Your task to perform on an android device: set an alarm Image 0: 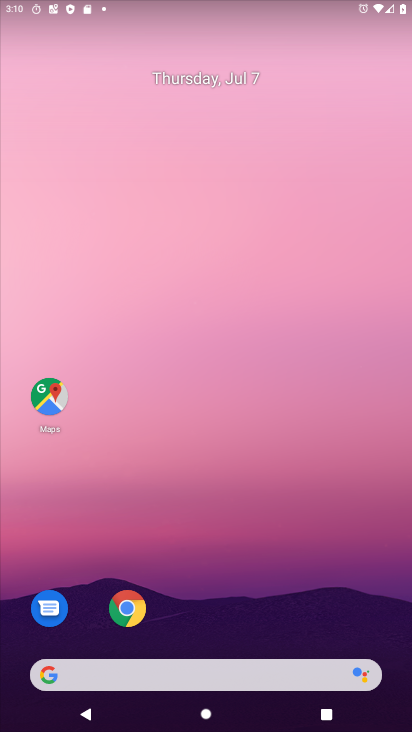
Step 0: drag from (245, 726) to (243, 116)
Your task to perform on an android device: set an alarm Image 1: 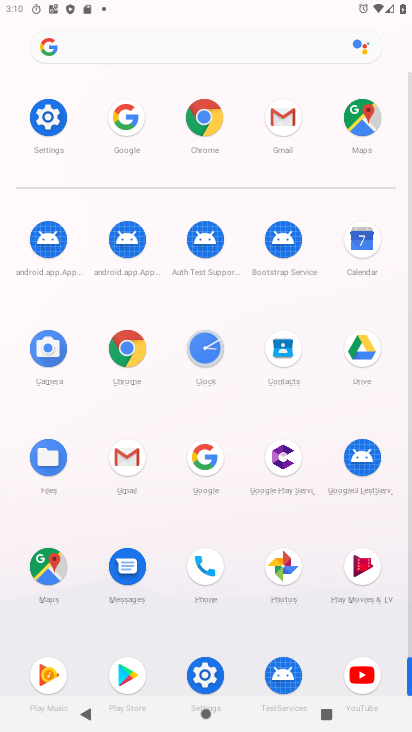
Step 1: click (206, 347)
Your task to perform on an android device: set an alarm Image 2: 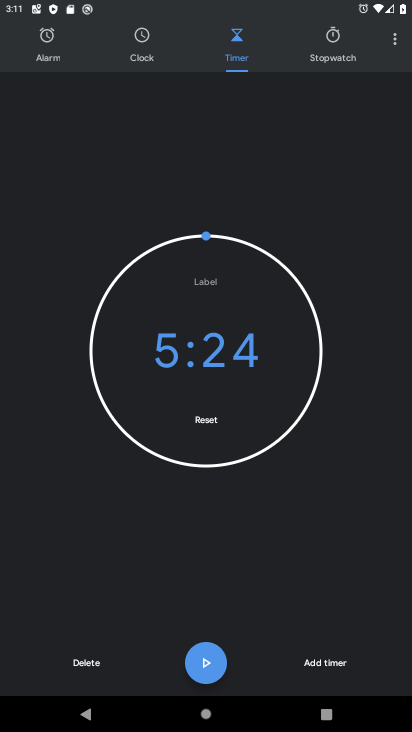
Step 2: click (39, 51)
Your task to perform on an android device: set an alarm Image 3: 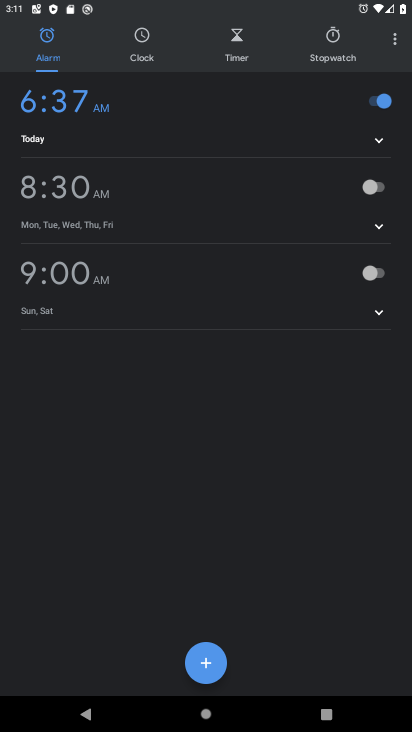
Step 3: click (207, 658)
Your task to perform on an android device: set an alarm Image 4: 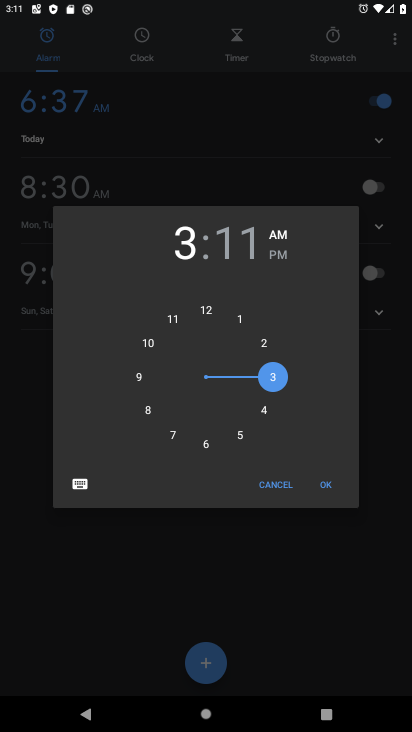
Step 4: click (169, 435)
Your task to perform on an android device: set an alarm Image 5: 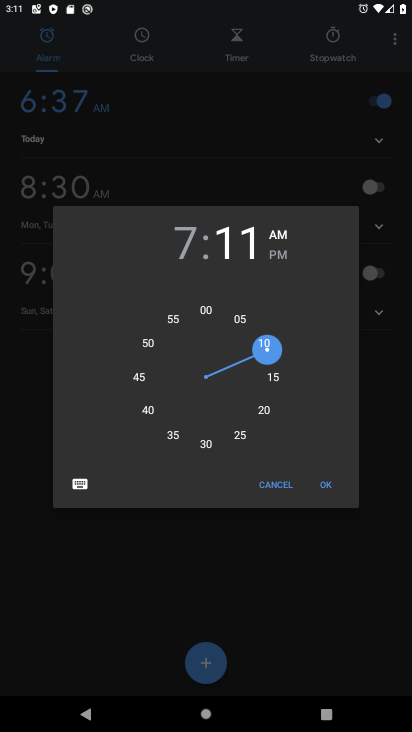
Step 5: click (326, 483)
Your task to perform on an android device: set an alarm Image 6: 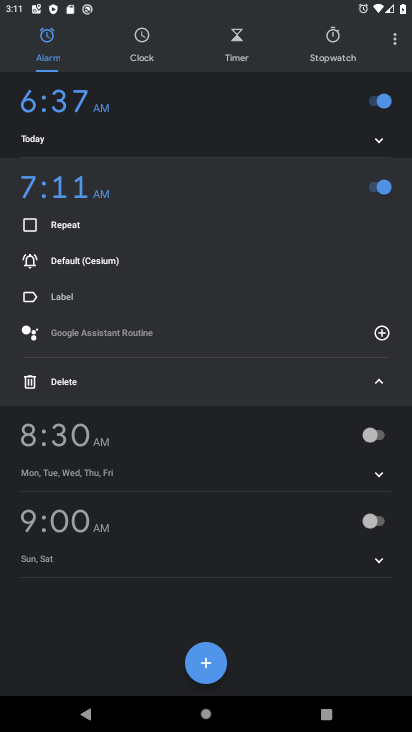
Step 6: task complete